Your task to perform on an android device: Go to Google maps Image 0: 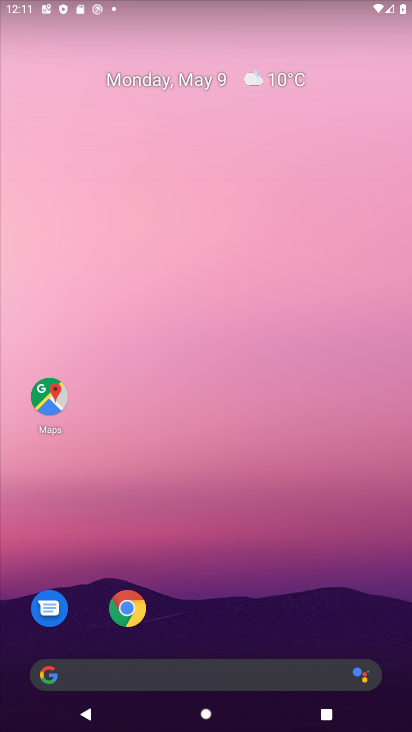
Step 0: click (195, 618)
Your task to perform on an android device: Go to Google maps Image 1: 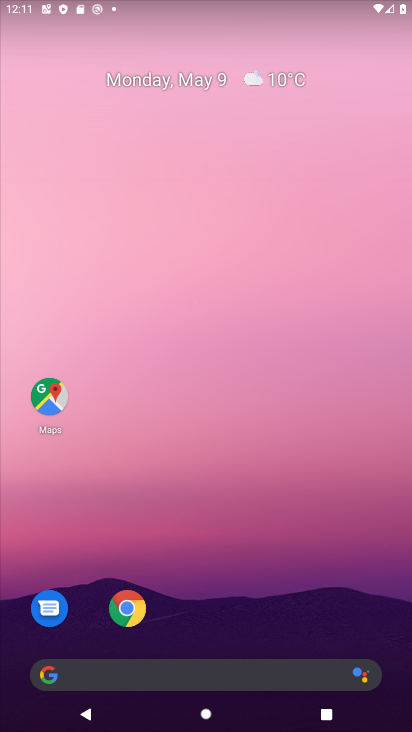
Step 1: click (44, 389)
Your task to perform on an android device: Go to Google maps Image 2: 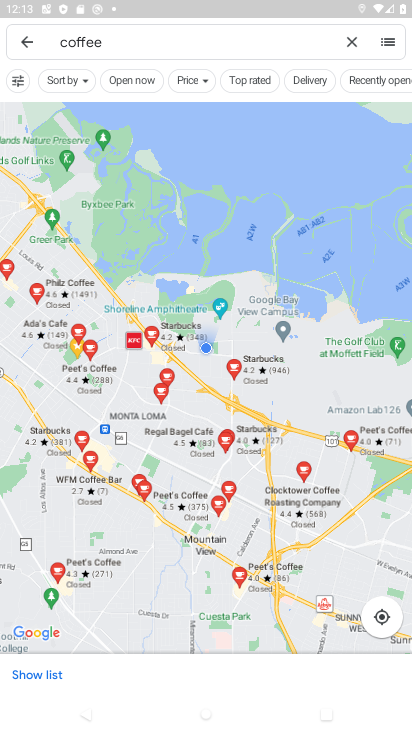
Step 2: task complete